Your task to perform on an android device: Open Google Maps Image 0: 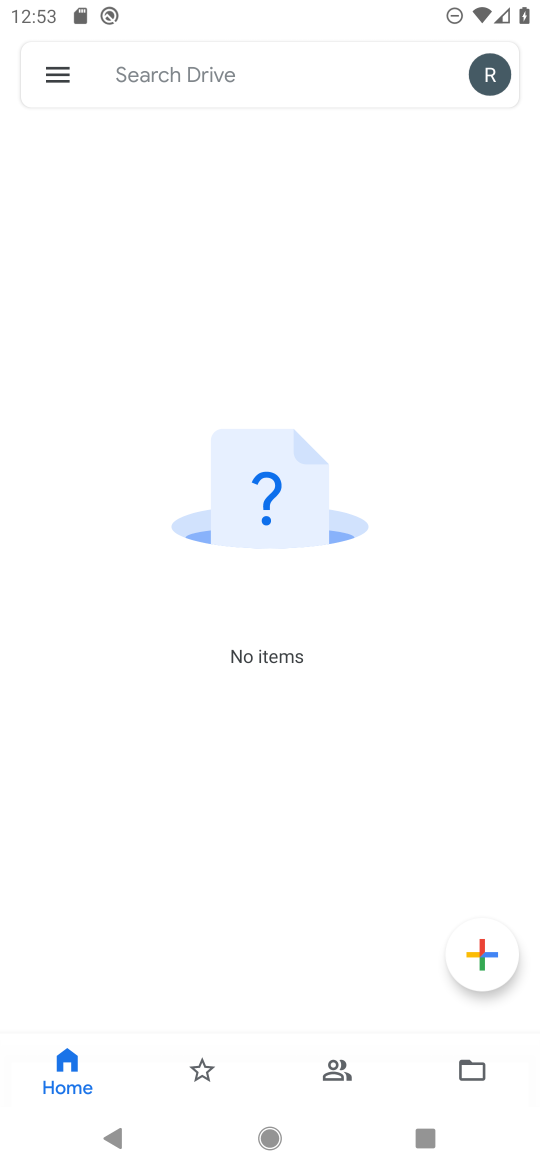
Step 0: press home button
Your task to perform on an android device: Open Google Maps Image 1: 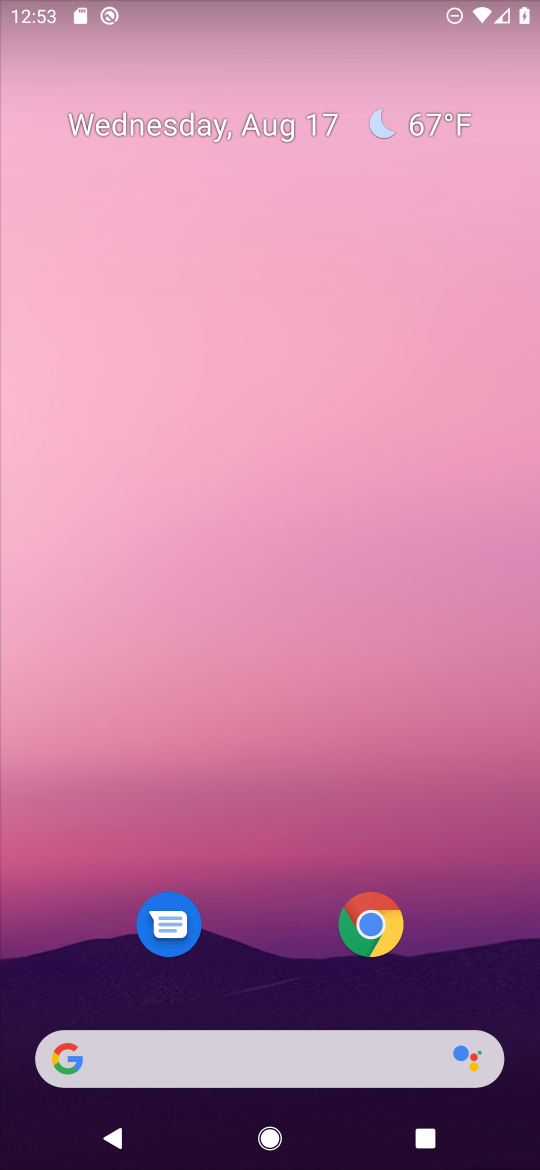
Step 1: drag from (257, 1009) to (404, 67)
Your task to perform on an android device: Open Google Maps Image 2: 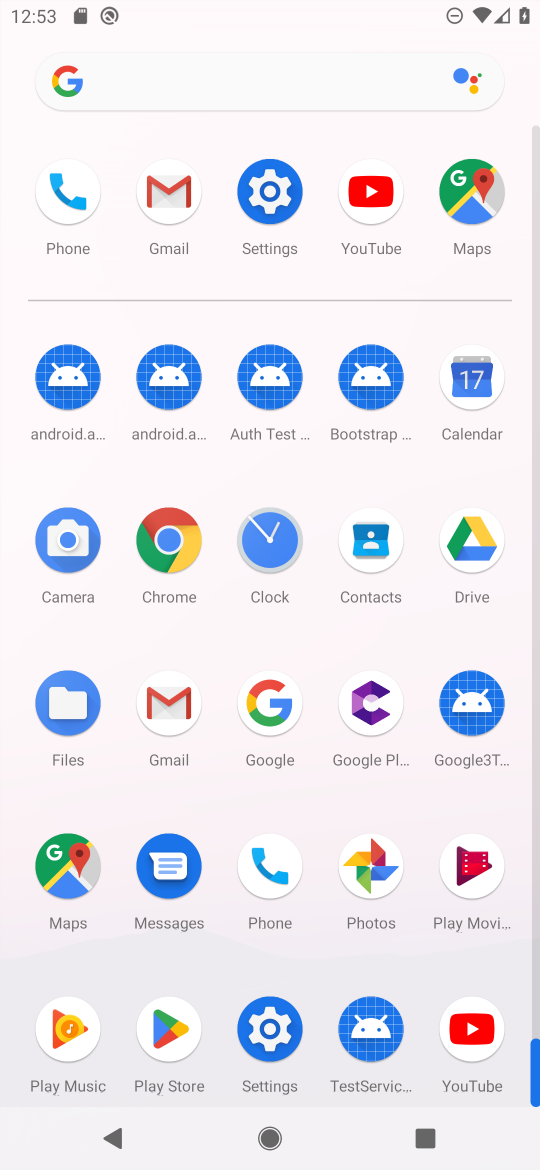
Step 2: click (494, 191)
Your task to perform on an android device: Open Google Maps Image 3: 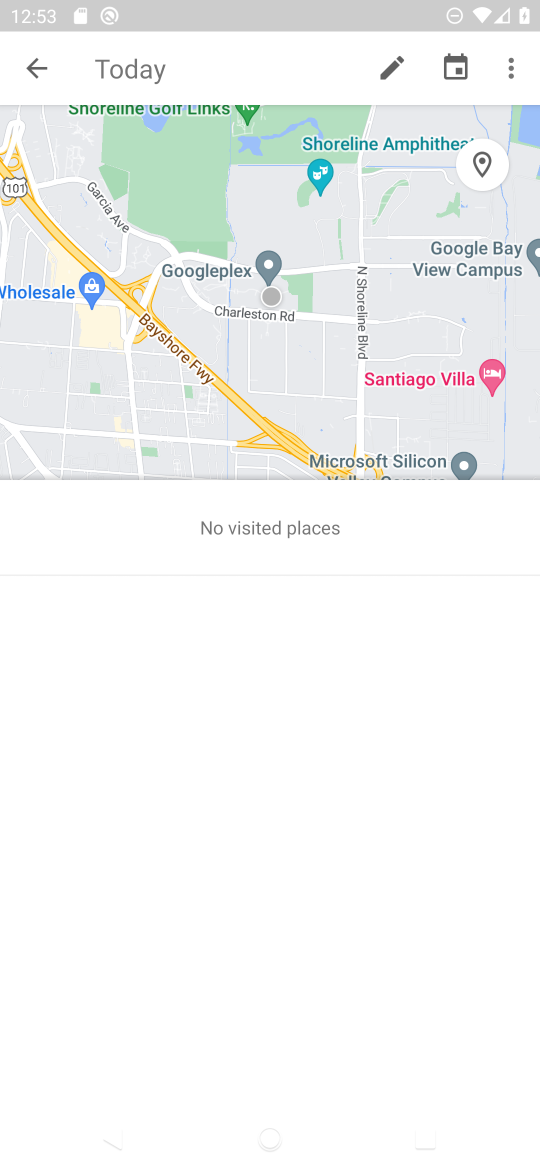
Step 3: click (33, 85)
Your task to perform on an android device: Open Google Maps Image 4: 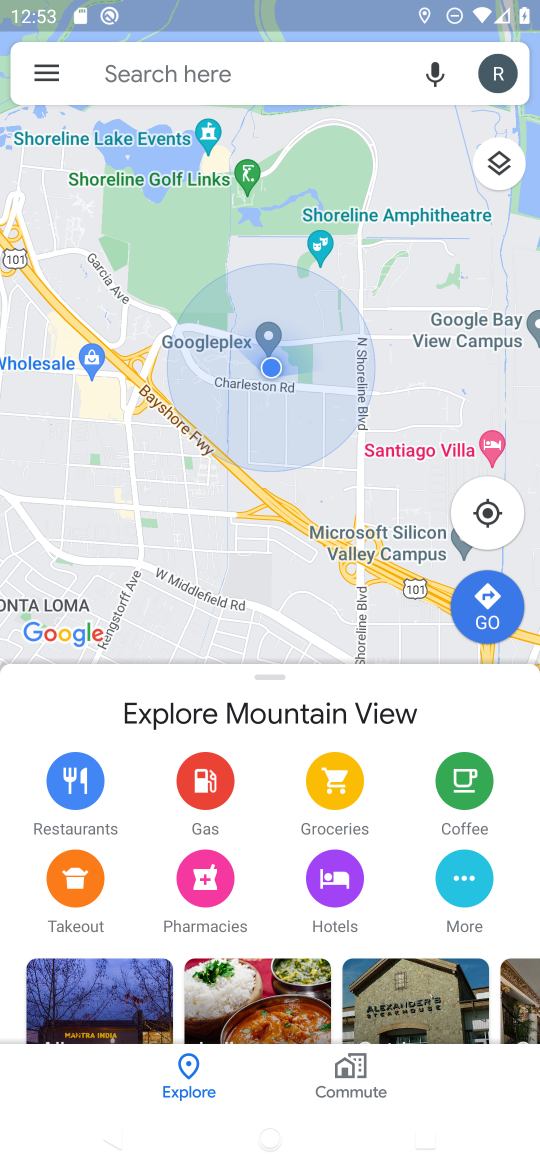
Step 4: task complete